Your task to perform on an android device: Do I have any events today? Image 0: 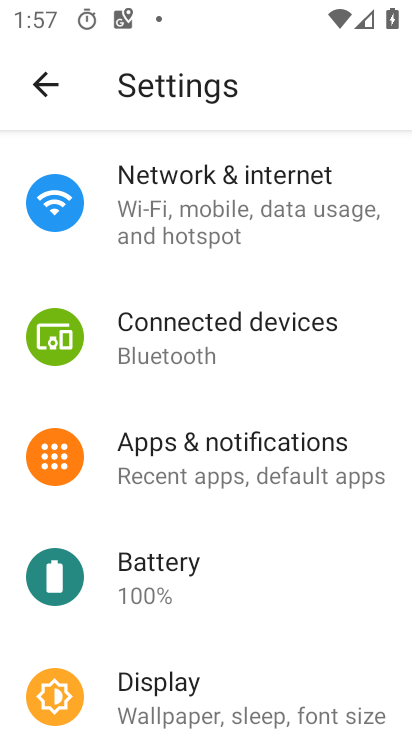
Step 0: press home button
Your task to perform on an android device: Do I have any events today? Image 1: 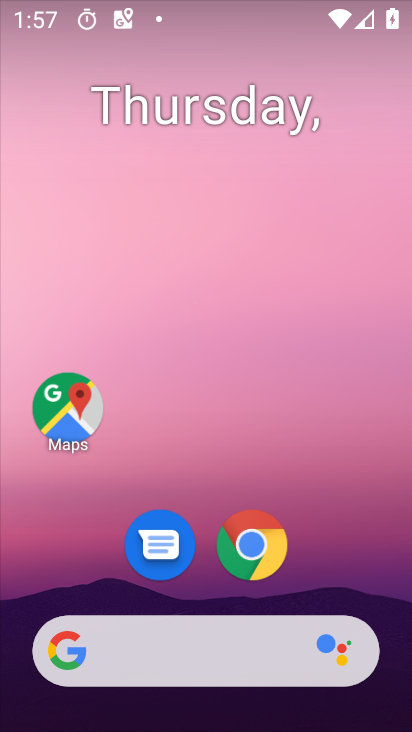
Step 1: drag from (217, 729) to (221, 207)
Your task to perform on an android device: Do I have any events today? Image 2: 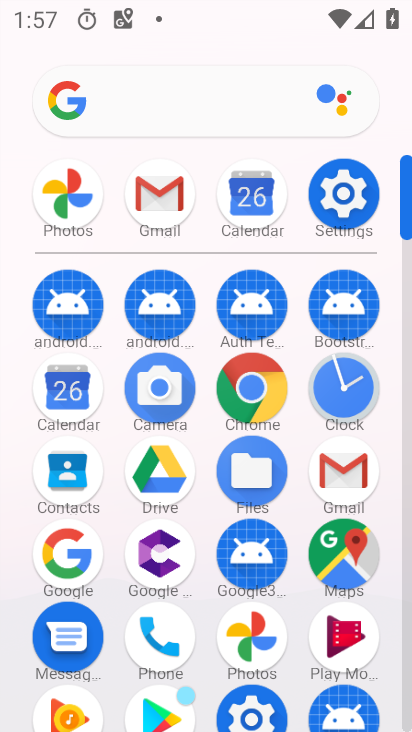
Step 2: click (75, 400)
Your task to perform on an android device: Do I have any events today? Image 3: 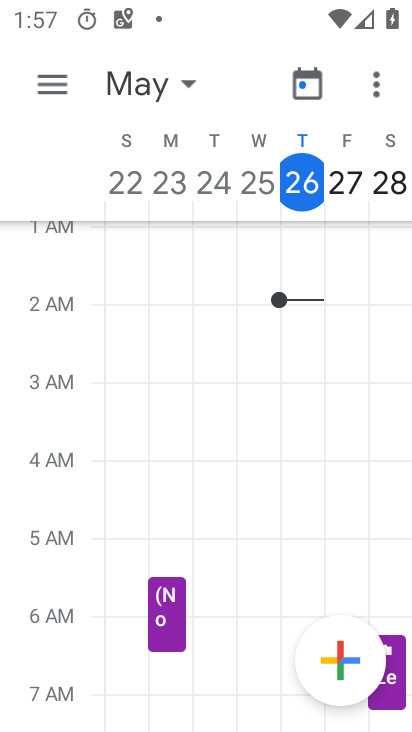
Step 3: click (295, 181)
Your task to perform on an android device: Do I have any events today? Image 4: 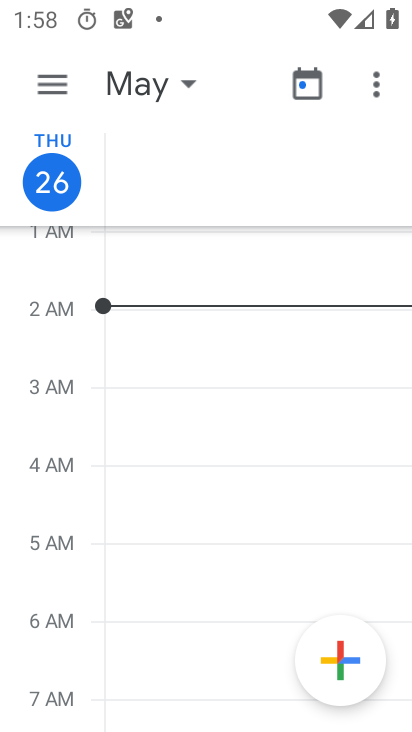
Step 4: click (55, 191)
Your task to perform on an android device: Do I have any events today? Image 5: 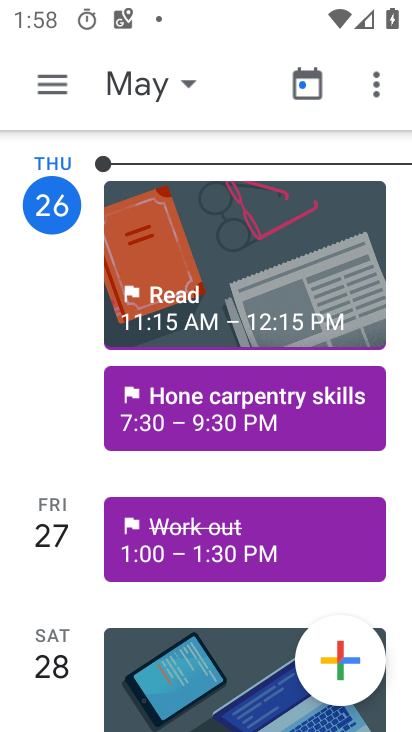
Step 5: task complete